Your task to perform on an android device: Open Maps and search for coffee Image 0: 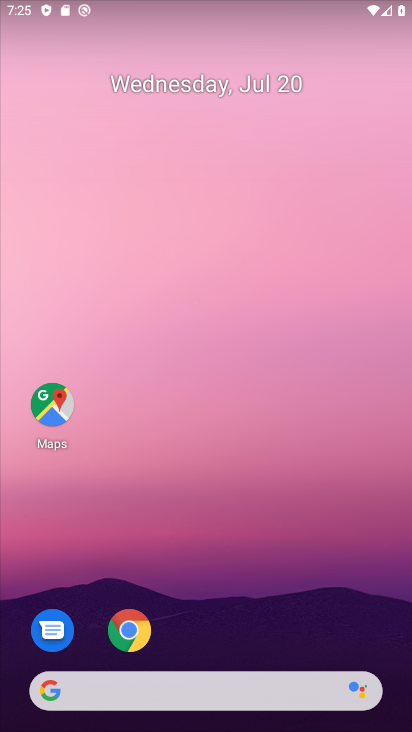
Step 0: click (52, 406)
Your task to perform on an android device: Open Maps and search for coffee Image 1: 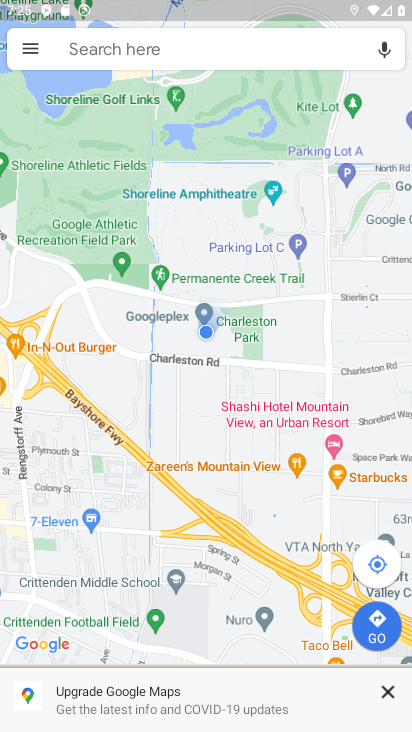
Step 1: click (188, 53)
Your task to perform on an android device: Open Maps and search for coffee Image 2: 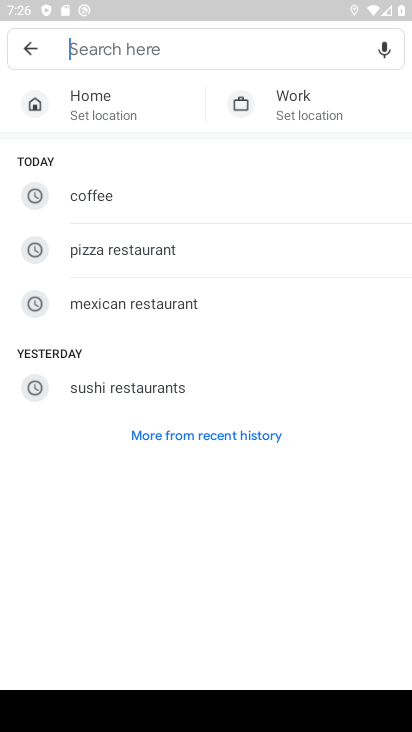
Step 2: type "coffee"
Your task to perform on an android device: Open Maps and search for coffee Image 3: 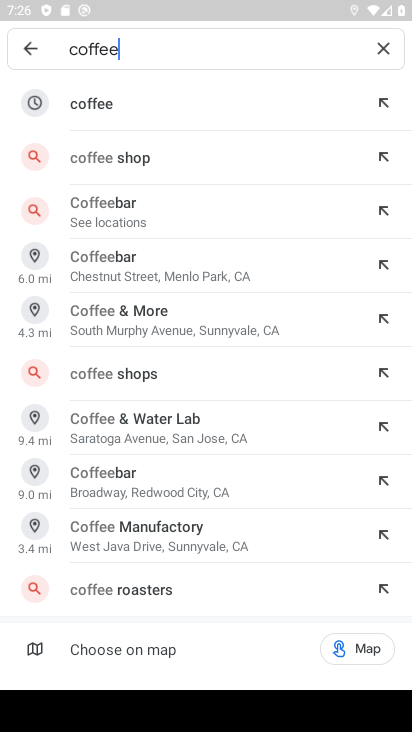
Step 3: click (94, 106)
Your task to perform on an android device: Open Maps and search for coffee Image 4: 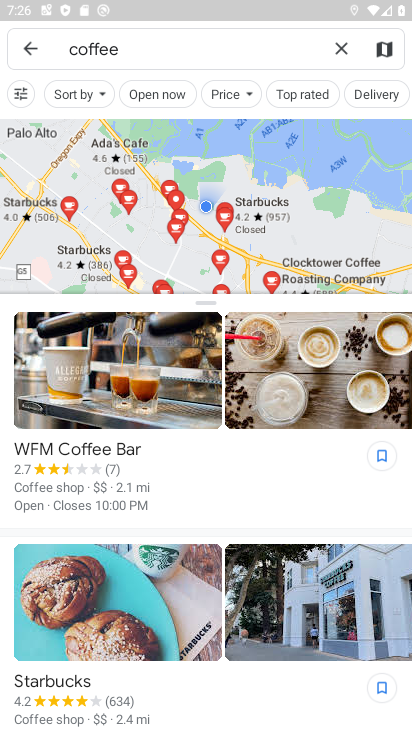
Step 4: task complete